Your task to perform on an android device: Open network settings Image 0: 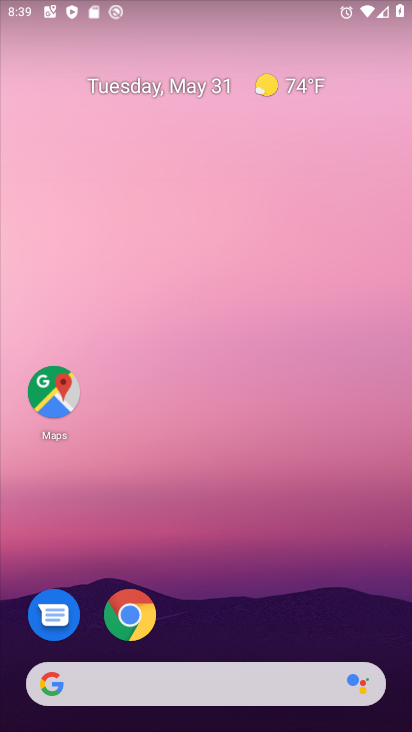
Step 0: drag from (240, 634) to (219, 186)
Your task to perform on an android device: Open network settings Image 1: 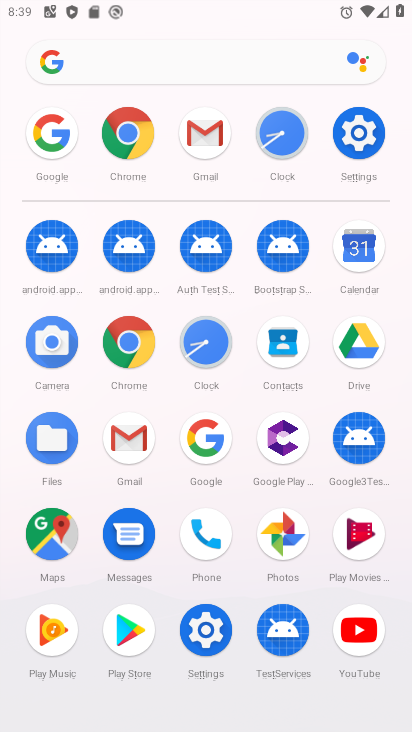
Step 1: click (348, 135)
Your task to perform on an android device: Open network settings Image 2: 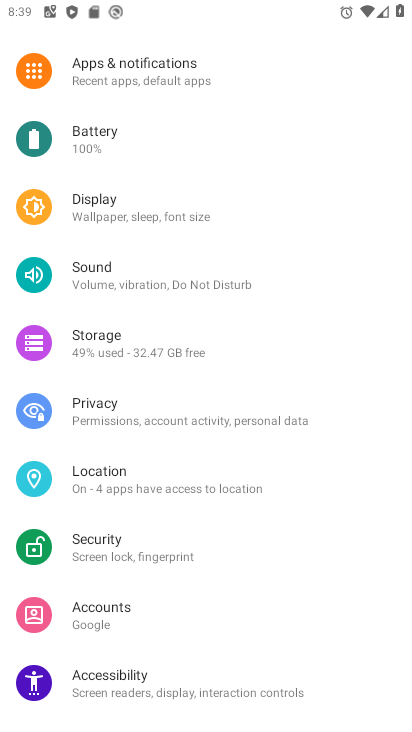
Step 2: click (178, 83)
Your task to perform on an android device: Open network settings Image 3: 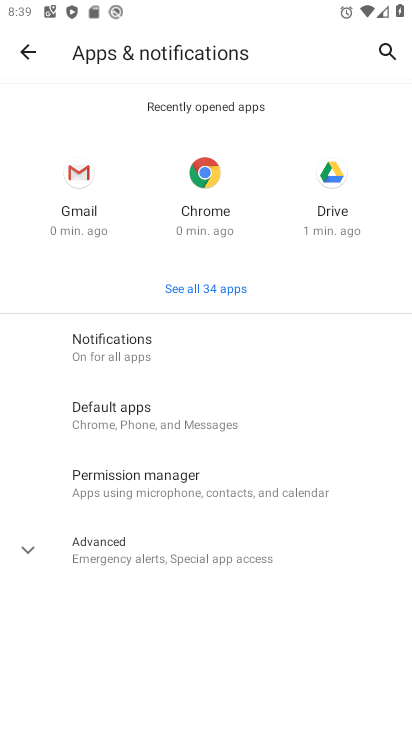
Step 3: click (28, 60)
Your task to perform on an android device: Open network settings Image 4: 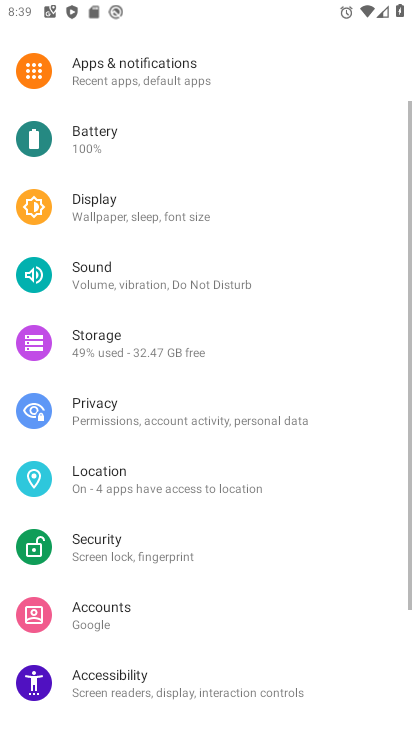
Step 4: drag from (141, 114) to (178, 595)
Your task to perform on an android device: Open network settings Image 5: 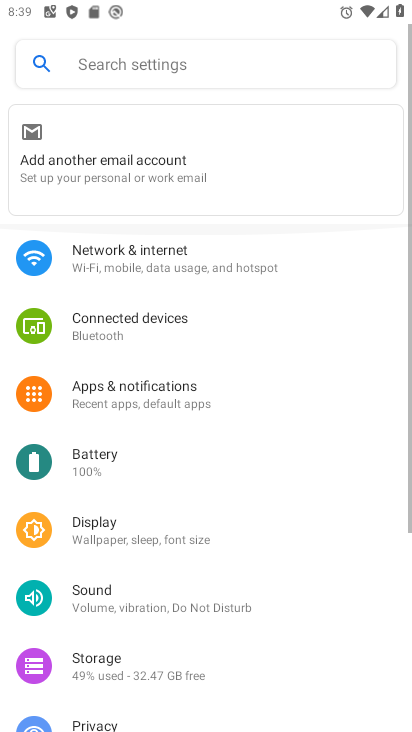
Step 5: drag from (159, 337) to (187, 596)
Your task to perform on an android device: Open network settings Image 6: 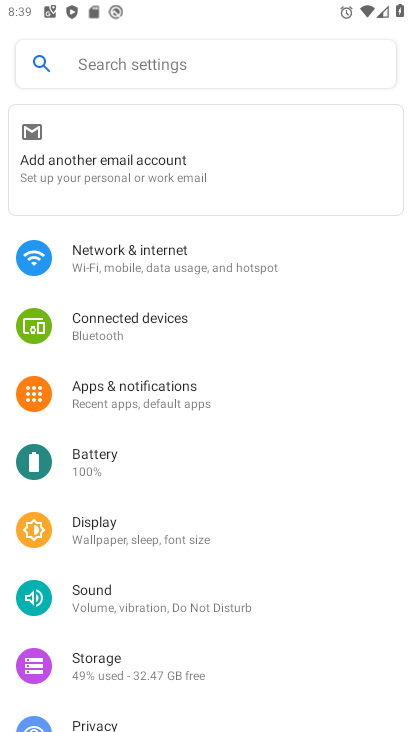
Step 6: click (189, 247)
Your task to perform on an android device: Open network settings Image 7: 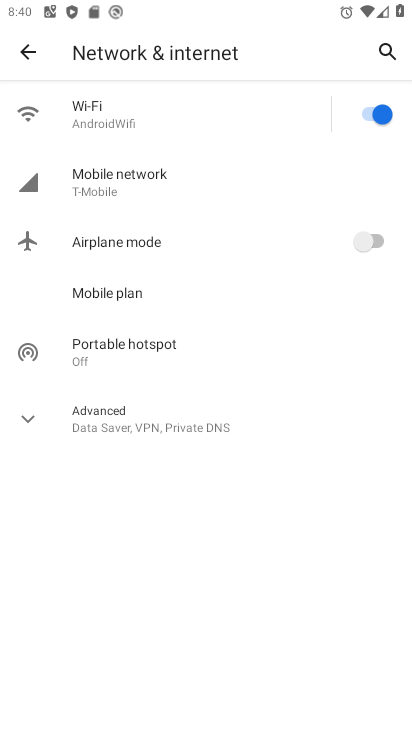
Step 7: click (213, 190)
Your task to perform on an android device: Open network settings Image 8: 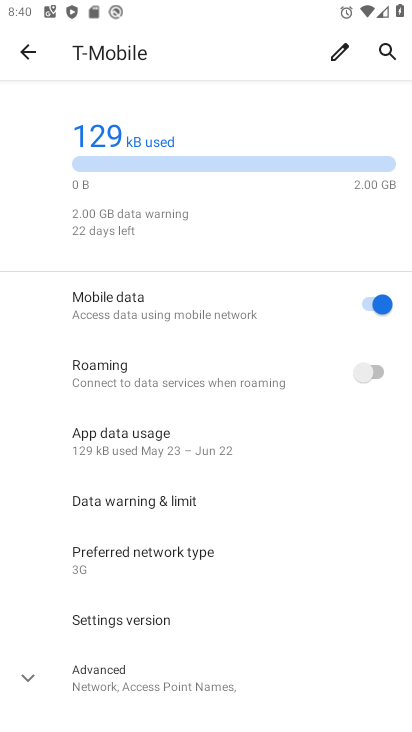
Step 8: task complete